Your task to perform on an android device: Go to Wikipedia Image 0: 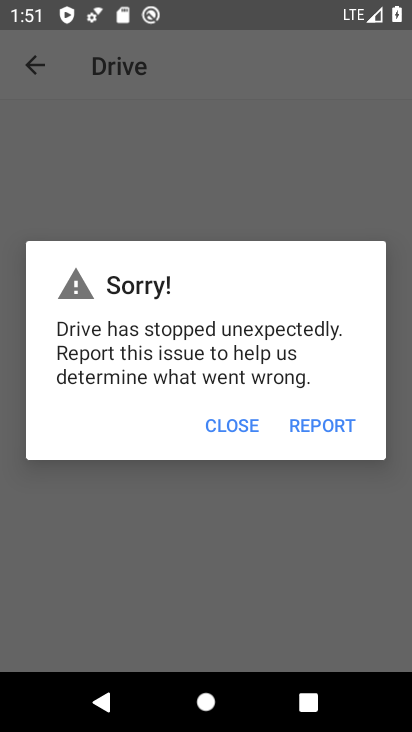
Step 0: press home button
Your task to perform on an android device: Go to Wikipedia Image 1: 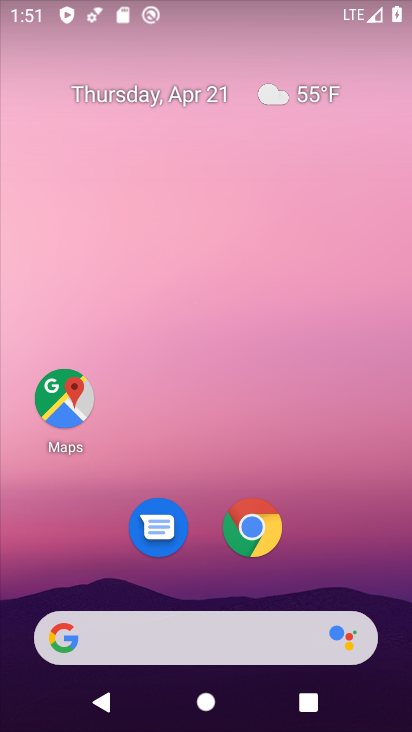
Step 1: drag from (358, 556) to (363, 109)
Your task to perform on an android device: Go to Wikipedia Image 2: 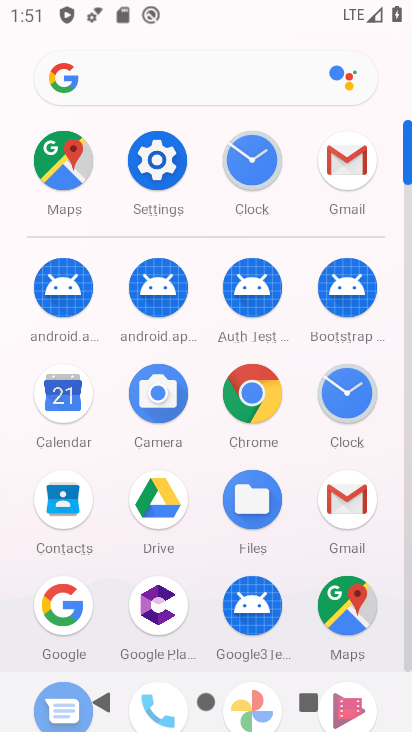
Step 2: click (254, 404)
Your task to perform on an android device: Go to Wikipedia Image 3: 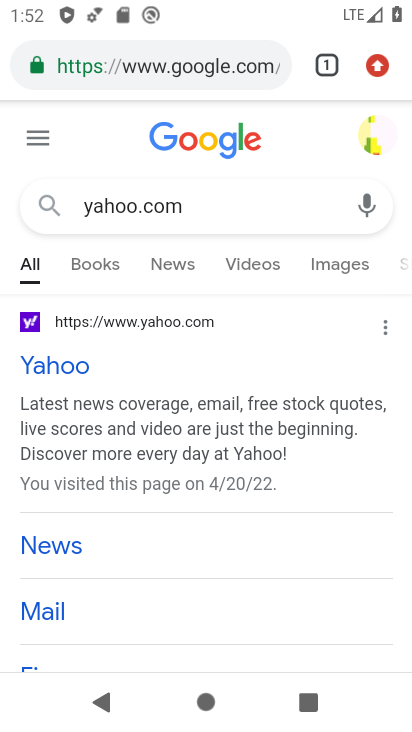
Step 3: task complete